Your task to perform on an android device: open app "Pluto TV - Live TV and Movies" Image 0: 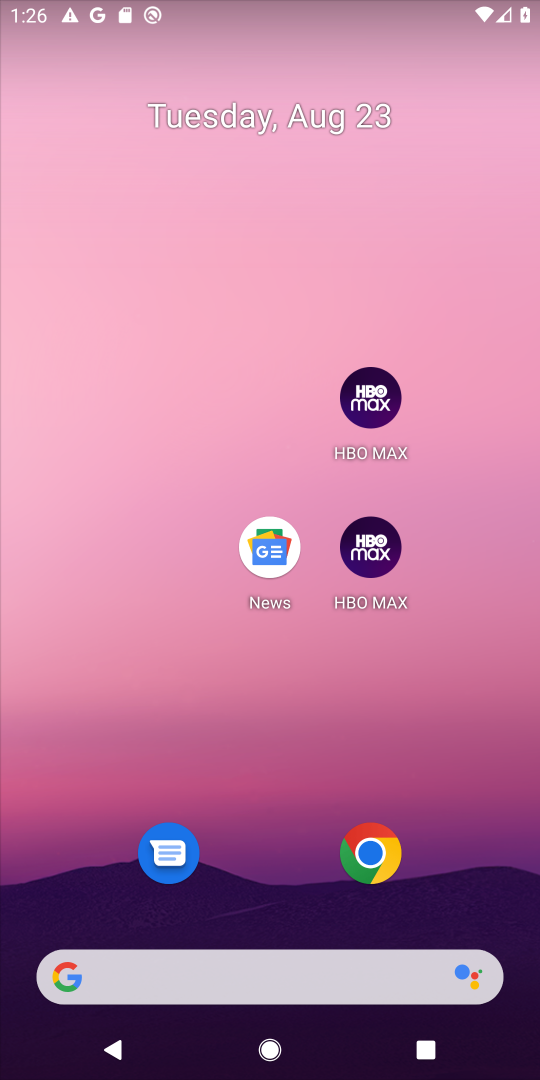
Step 0: drag from (507, 930) to (476, 239)
Your task to perform on an android device: open app "Pluto TV - Live TV and Movies" Image 1: 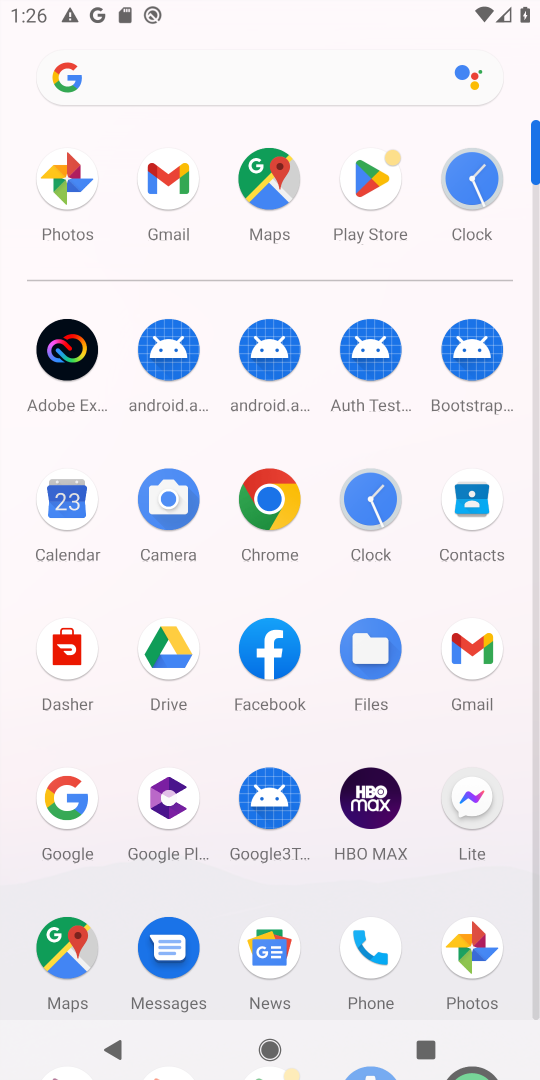
Step 1: click (535, 1004)
Your task to perform on an android device: open app "Pluto TV - Live TV and Movies" Image 2: 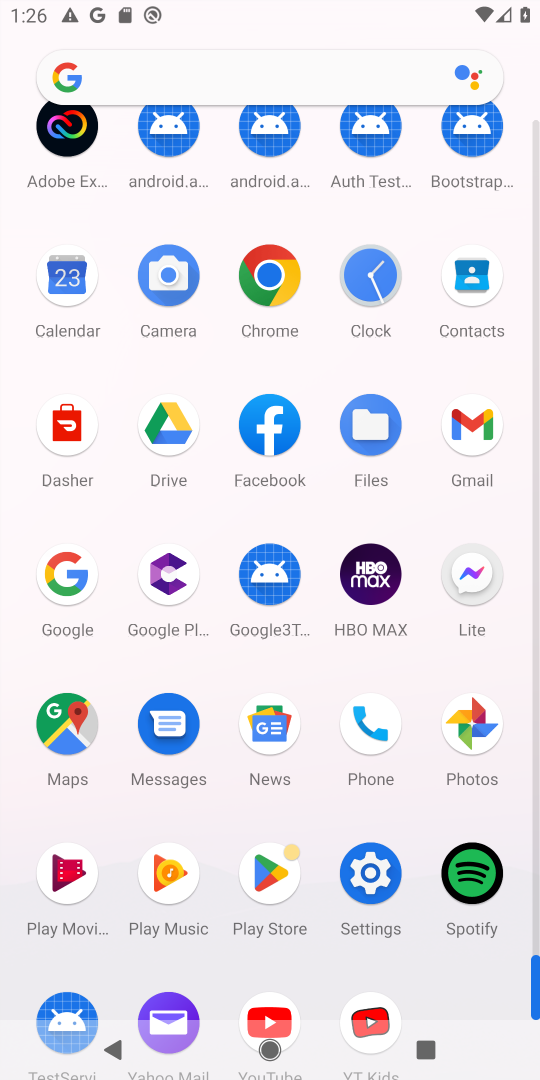
Step 2: click (267, 874)
Your task to perform on an android device: open app "Pluto TV - Live TV and Movies" Image 3: 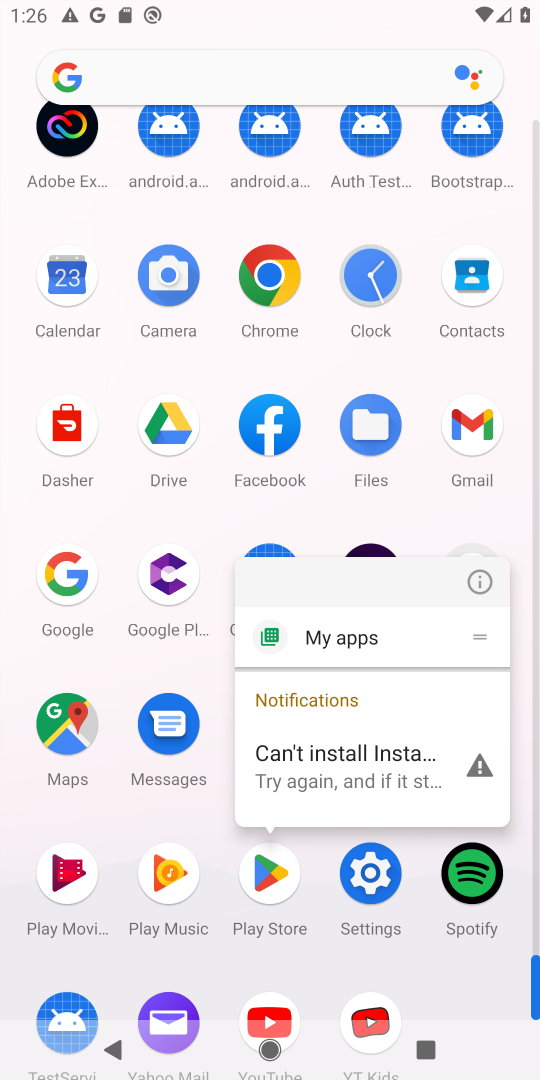
Step 3: click (267, 872)
Your task to perform on an android device: open app "Pluto TV - Live TV and Movies" Image 4: 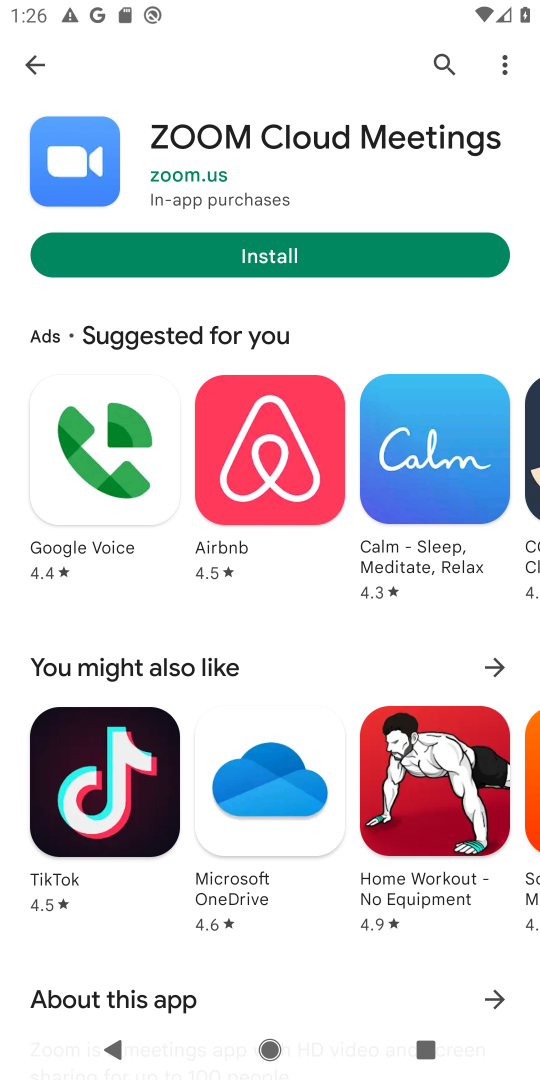
Step 4: click (444, 60)
Your task to perform on an android device: open app "Pluto TV - Live TV and Movies" Image 5: 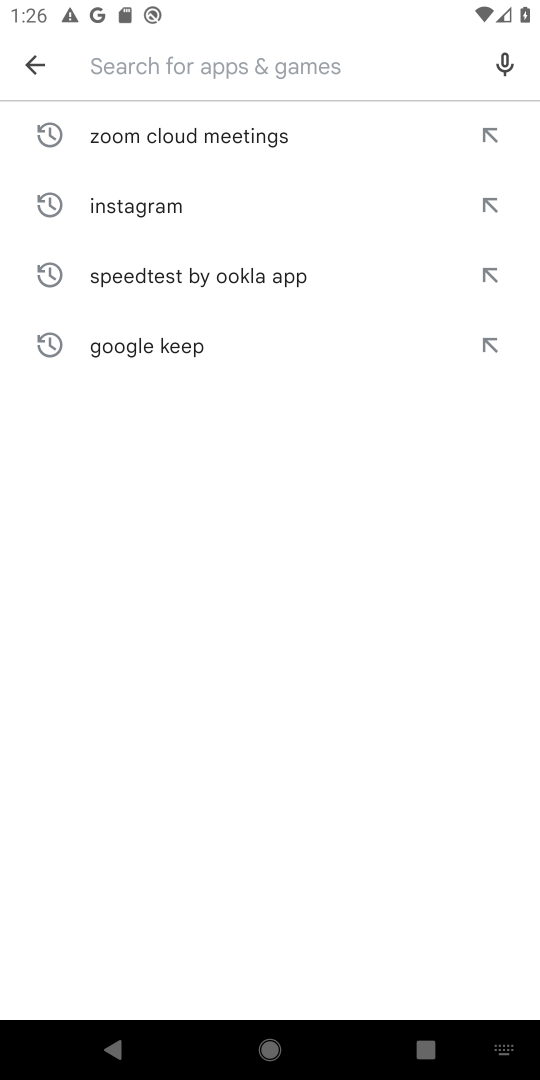
Step 5: type "Pluto TV - Live TV and Movies"
Your task to perform on an android device: open app "Pluto TV - Live TV and Movies" Image 6: 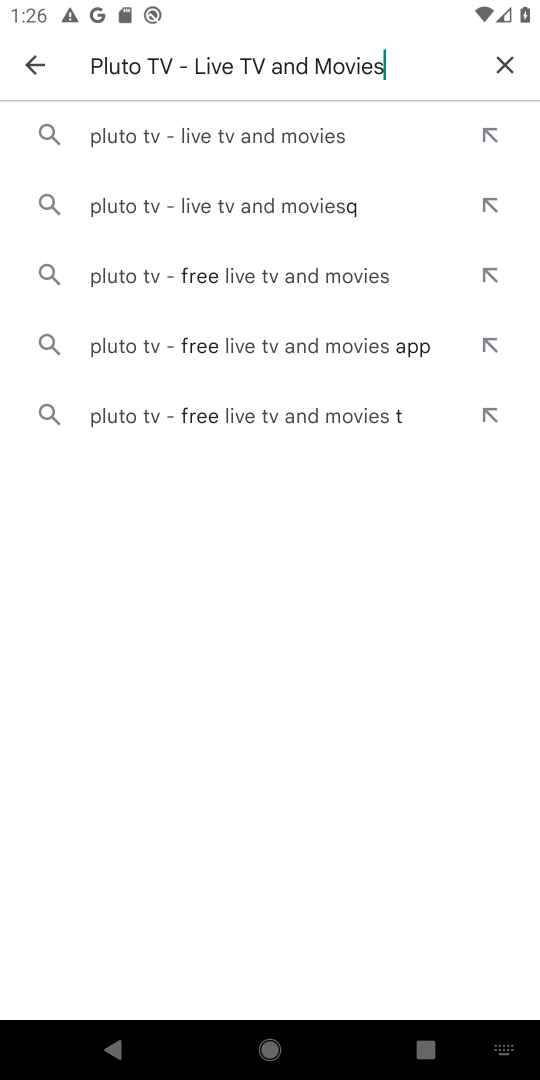
Step 6: click (159, 135)
Your task to perform on an android device: open app "Pluto TV - Live TV and Movies" Image 7: 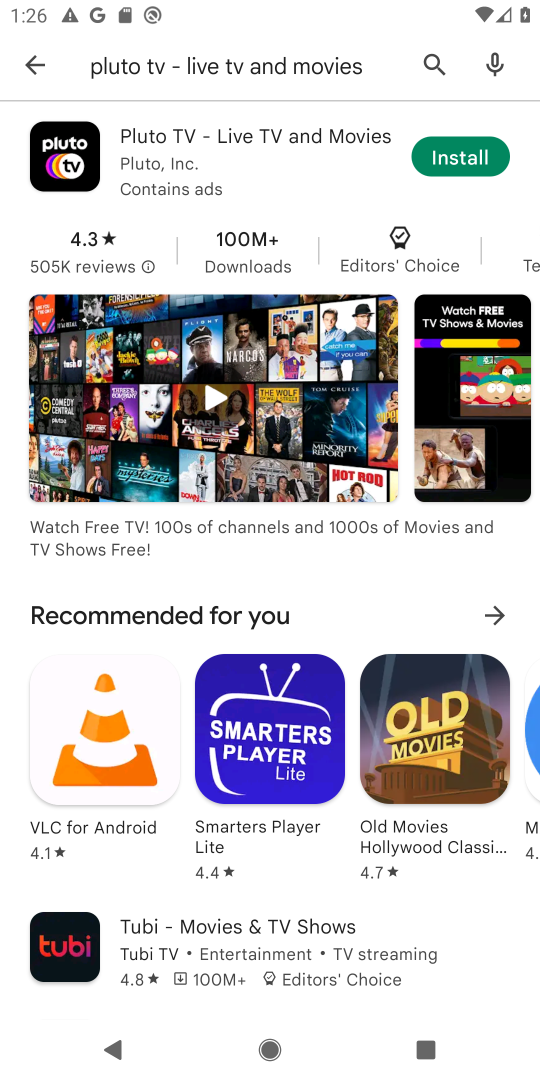
Step 7: click (173, 143)
Your task to perform on an android device: open app "Pluto TV - Live TV and Movies" Image 8: 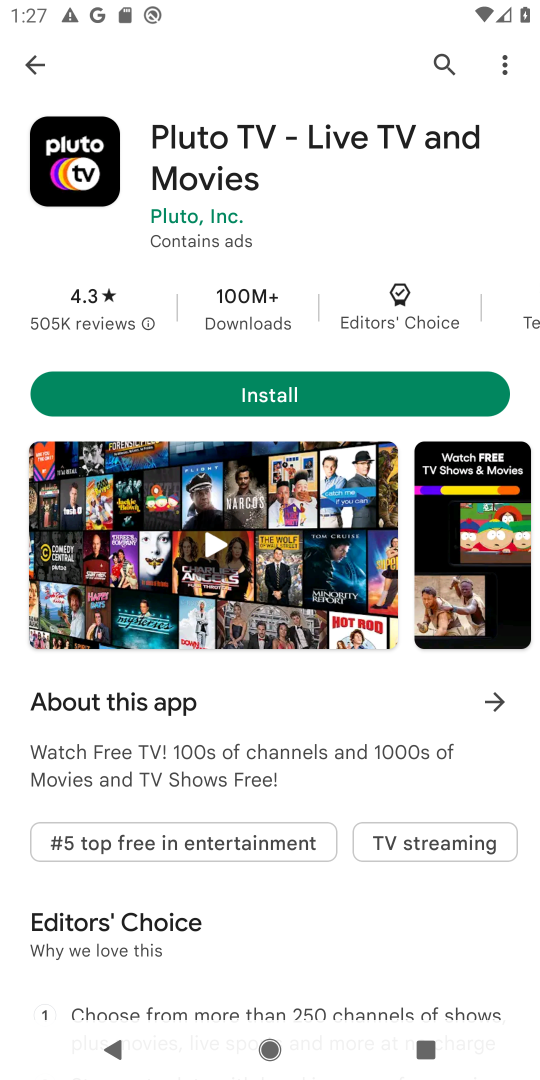
Step 8: task complete